Your task to perform on an android device: open device folders in google photos Image 0: 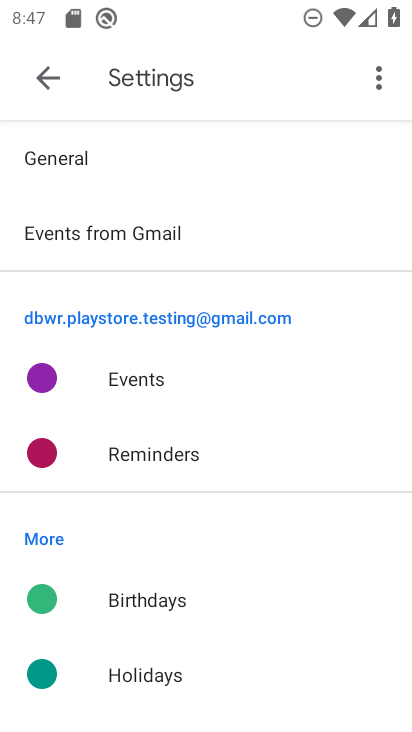
Step 0: press home button
Your task to perform on an android device: open device folders in google photos Image 1: 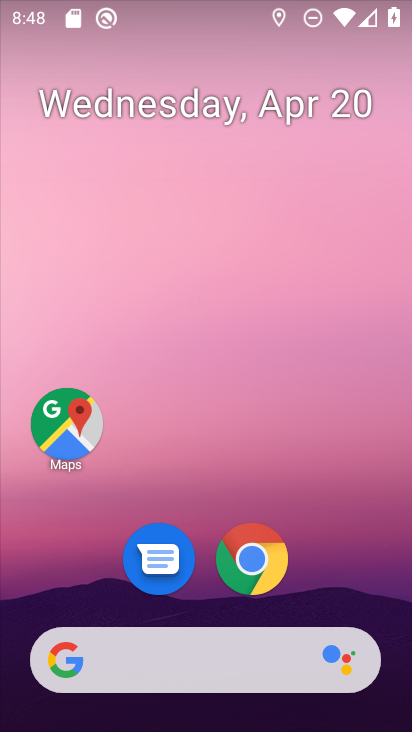
Step 1: drag from (352, 600) to (294, 249)
Your task to perform on an android device: open device folders in google photos Image 2: 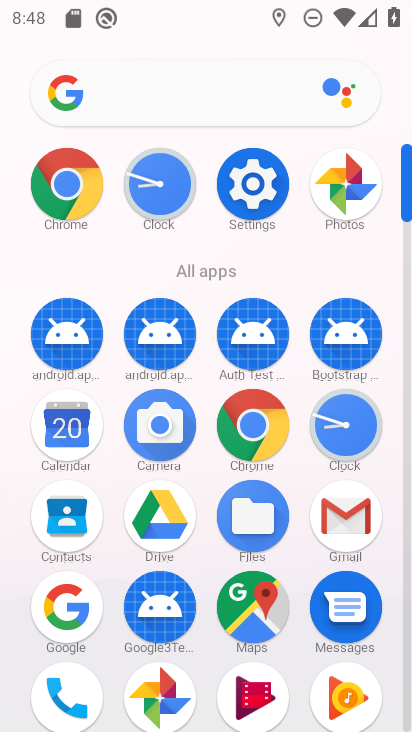
Step 2: click (410, 696)
Your task to perform on an android device: open device folders in google photos Image 3: 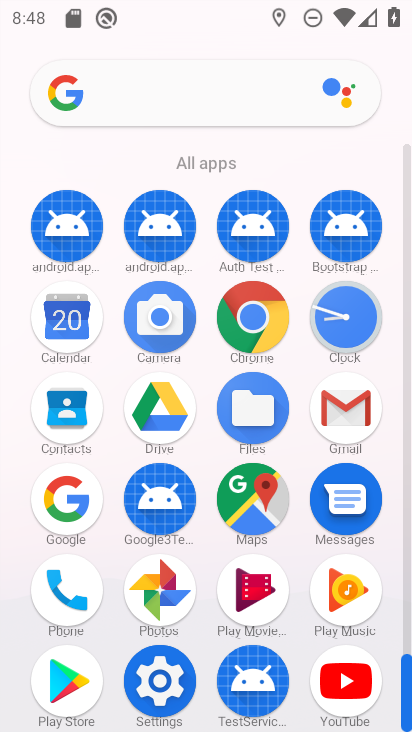
Step 3: click (160, 591)
Your task to perform on an android device: open device folders in google photos Image 4: 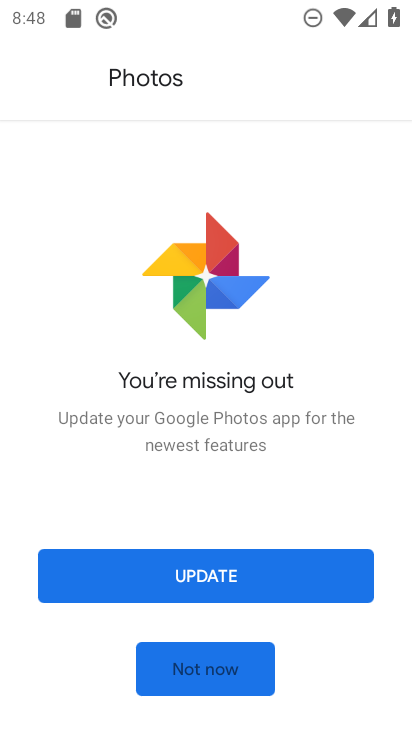
Step 4: click (205, 667)
Your task to perform on an android device: open device folders in google photos Image 5: 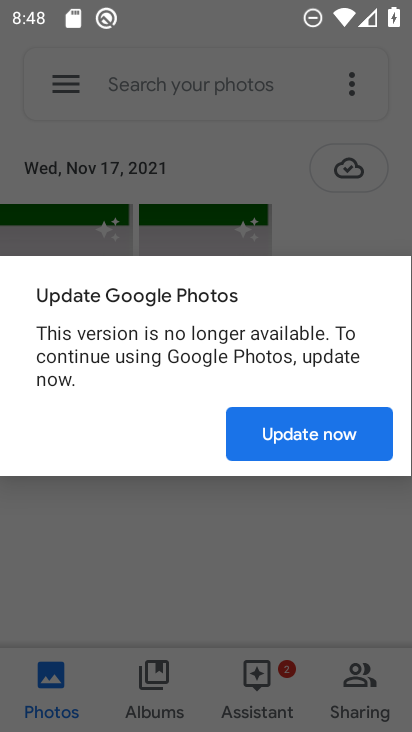
Step 5: click (290, 427)
Your task to perform on an android device: open device folders in google photos Image 6: 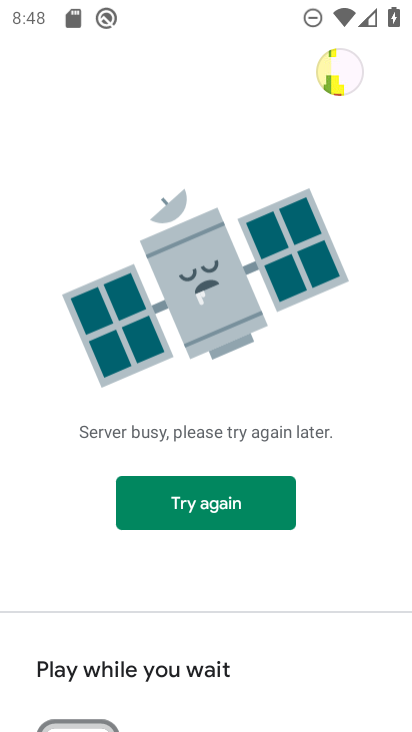
Step 6: click (195, 511)
Your task to perform on an android device: open device folders in google photos Image 7: 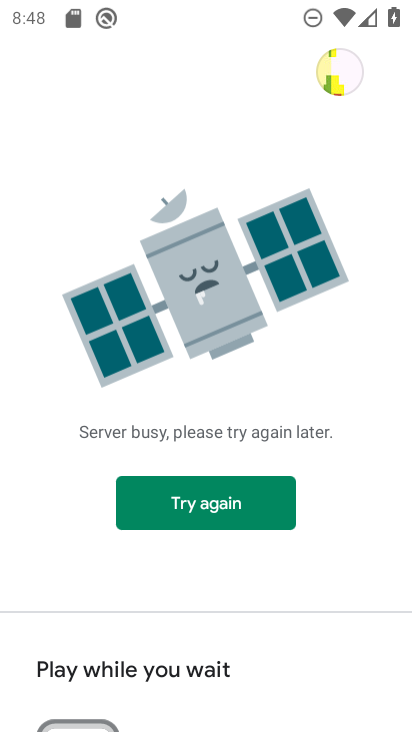
Step 7: task complete